Your task to perform on an android device: See recent photos Image 0: 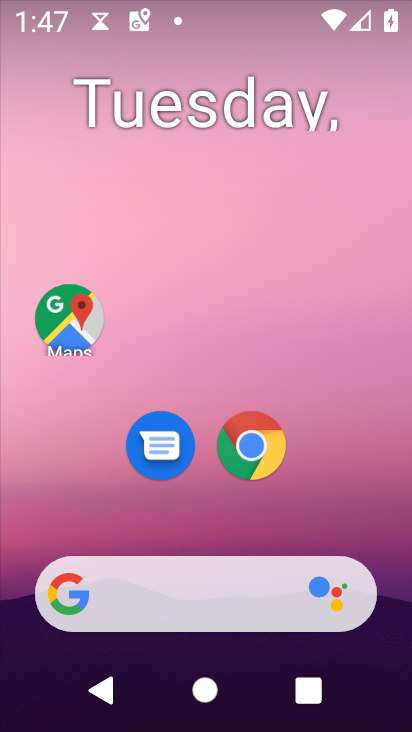
Step 0: drag from (284, 494) to (310, 1)
Your task to perform on an android device: See recent photos Image 1: 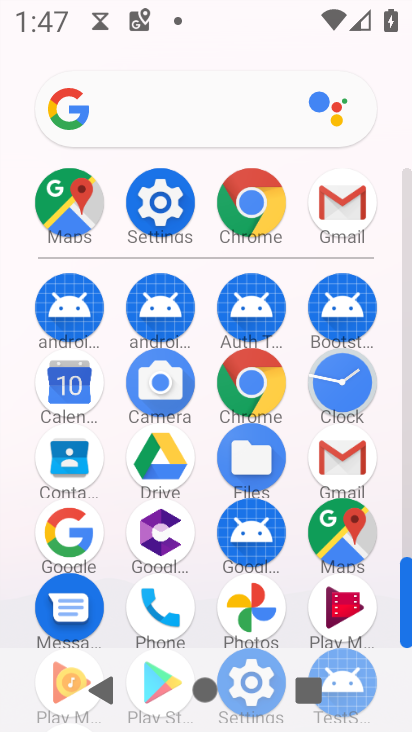
Step 1: click (265, 613)
Your task to perform on an android device: See recent photos Image 2: 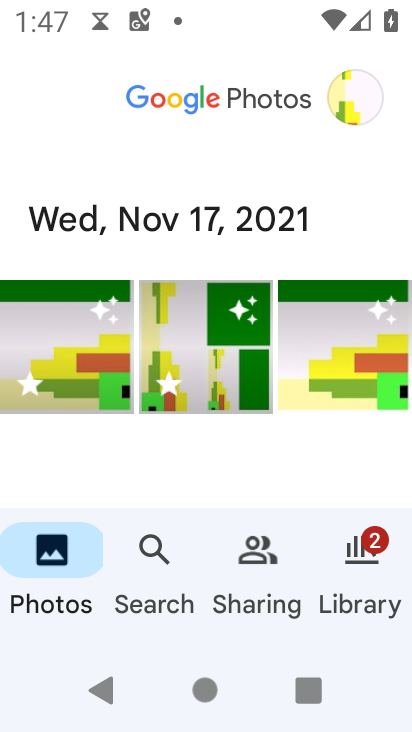
Step 2: task complete